Your task to perform on an android device: Go to privacy settings Image 0: 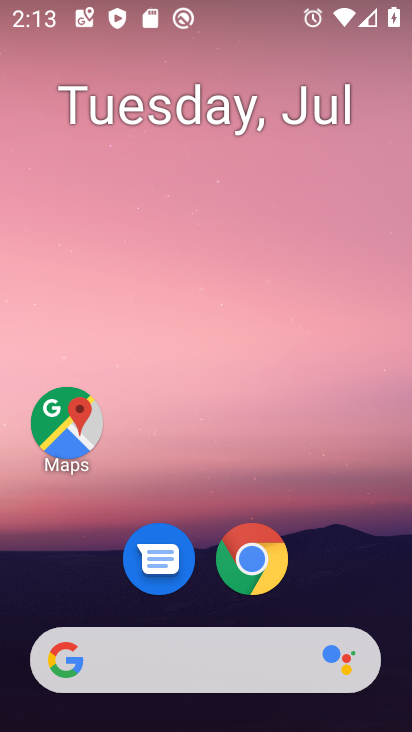
Step 0: drag from (384, 542) to (387, 139)
Your task to perform on an android device: Go to privacy settings Image 1: 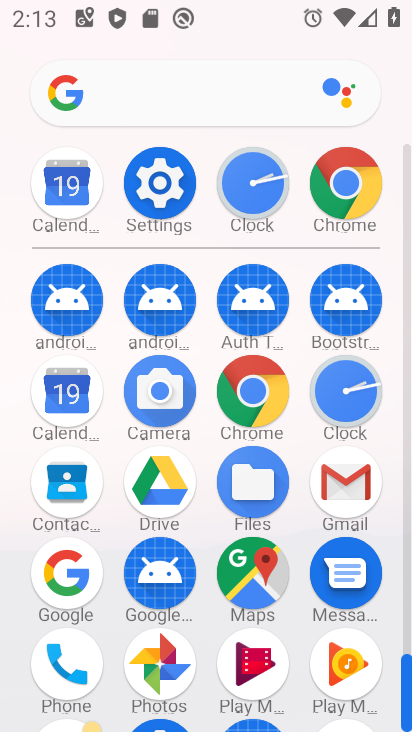
Step 1: click (176, 195)
Your task to perform on an android device: Go to privacy settings Image 2: 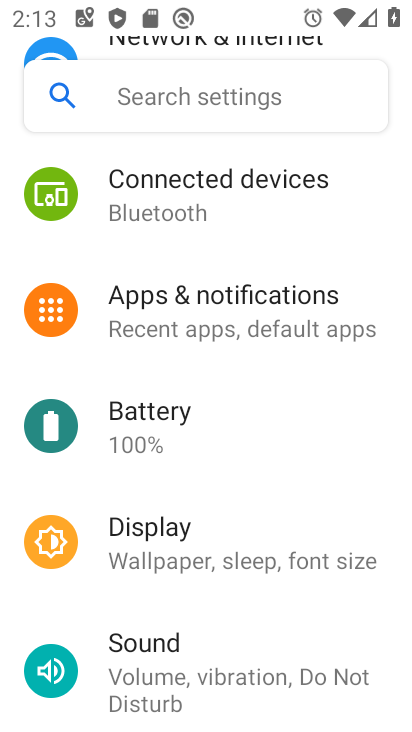
Step 2: drag from (287, 424) to (292, 369)
Your task to perform on an android device: Go to privacy settings Image 3: 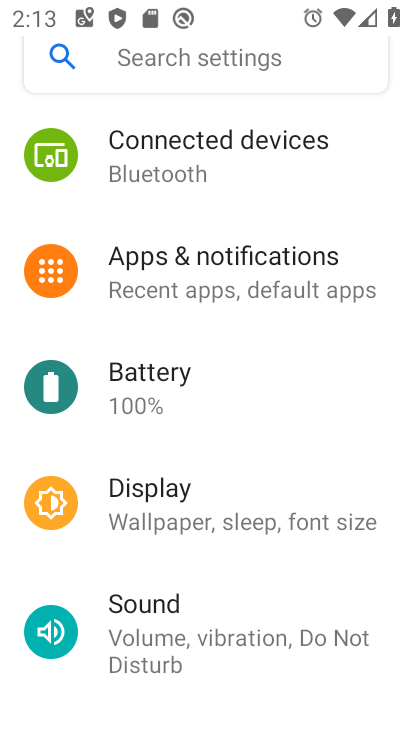
Step 3: drag from (294, 447) to (294, 355)
Your task to perform on an android device: Go to privacy settings Image 4: 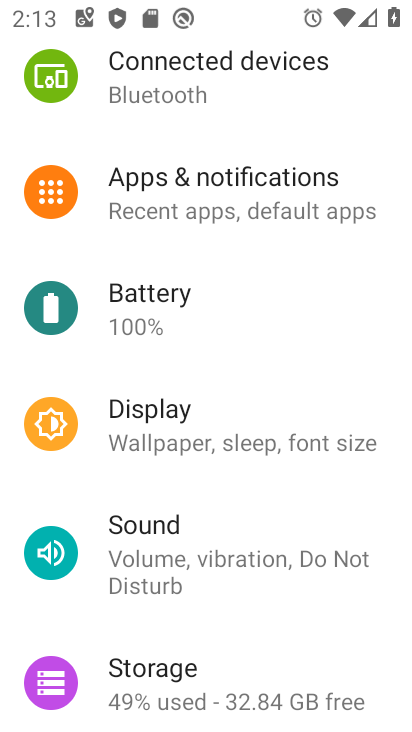
Step 4: drag from (297, 484) to (302, 381)
Your task to perform on an android device: Go to privacy settings Image 5: 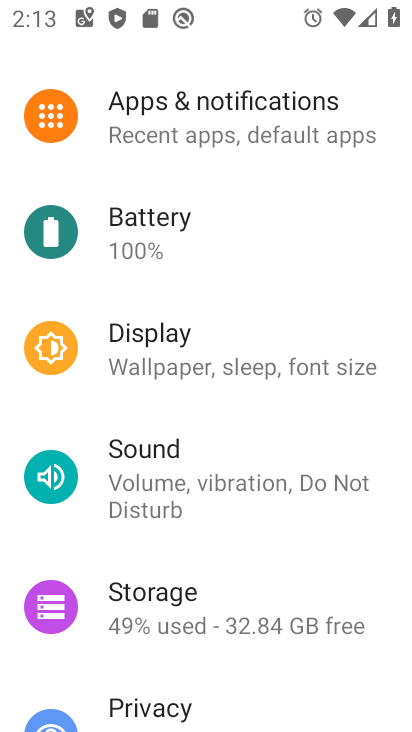
Step 5: drag from (295, 533) to (297, 437)
Your task to perform on an android device: Go to privacy settings Image 6: 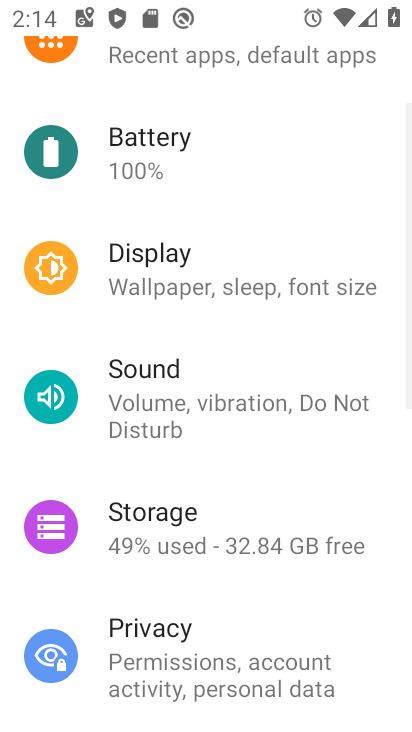
Step 6: drag from (306, 505) to (319, 417)
Your task to perform on an android device: Go to privacy settings Image 7: 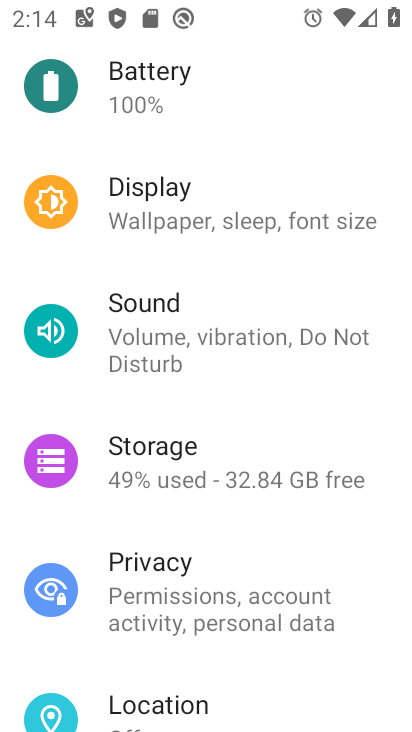
Step 7: drag from (347, 516) to (353, 435)
Your task to perform on an android device: Go to privacy settings Image 8: 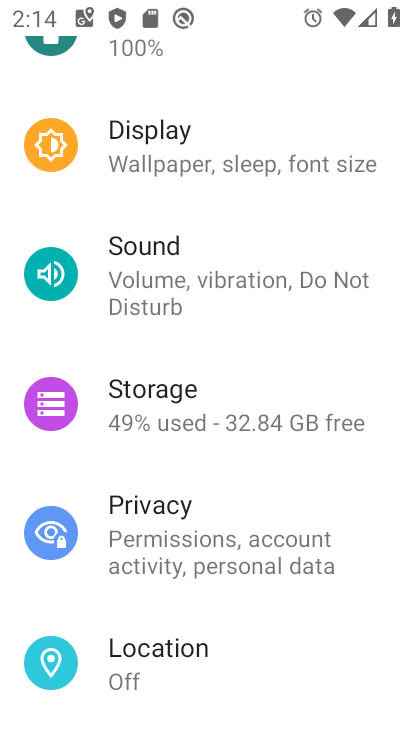
Step 8: drag from (346, 661) to (367, 516)
Your task to perform on an android device: Go to privacy settings Image 9: 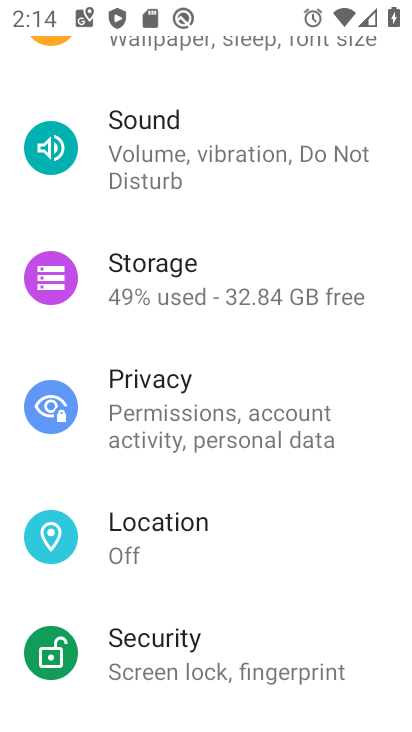
Step 9: click (288, 429)
Your task to perform on an android device: Go to privacy settings Image 10: 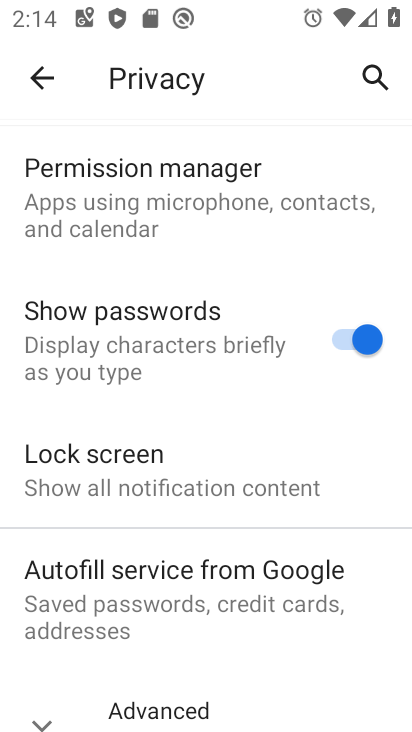
Step 10: drag from (262, 652) to (281, 531)
Your task to perform on an android device: Go to privacy settings Image 11: 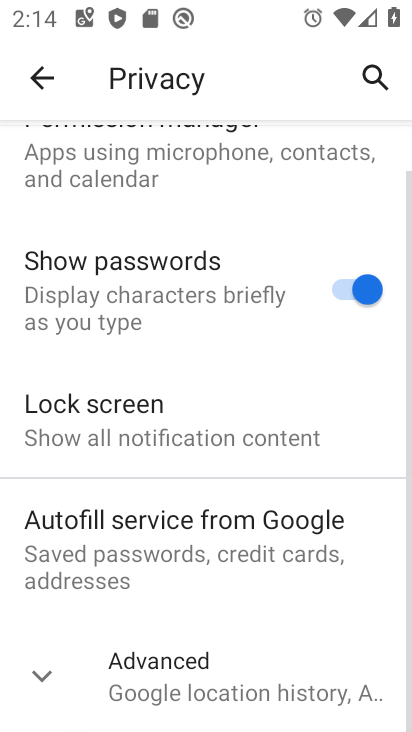
Step 11: click (268, 687)
Your task to perform on an android device: Go to privacy settings Image 12: 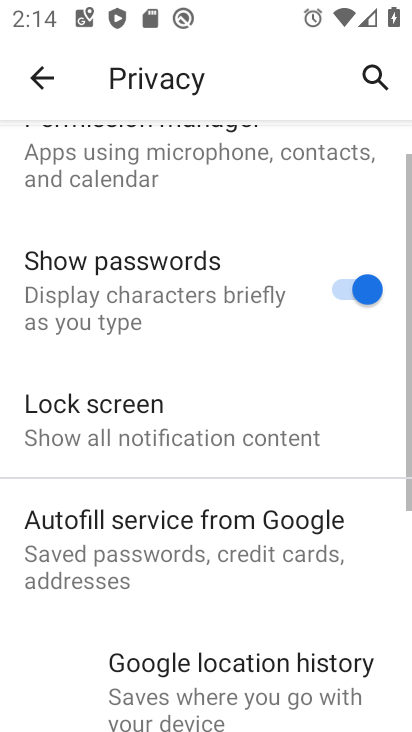
Step 12: task complete